Your task to perform on an android device: empty trash in google photos Image 0: 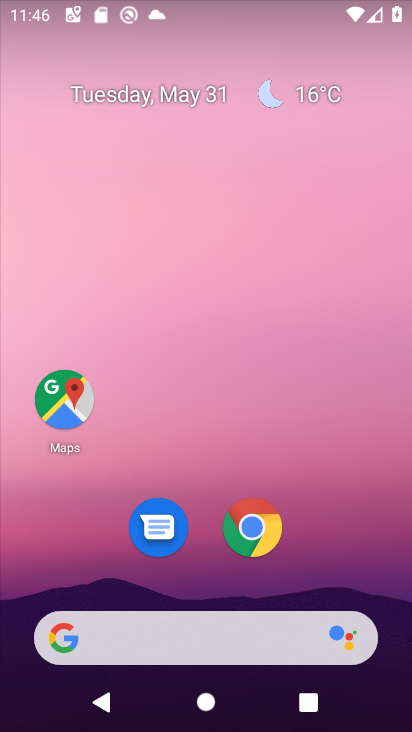
Step 0: drag from (335, 594) to (362, 10)
Your task to perform on an android device: empty trash in google photos Image 1: 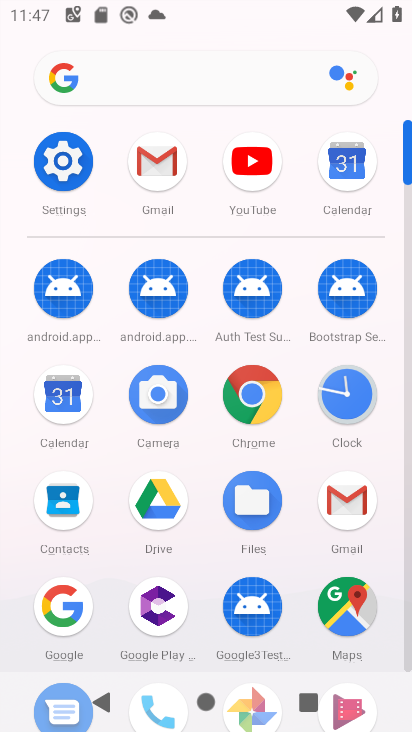
Step 1: click (404, 501)
Your task to perform on an android device: empty trash in google photos Image 2: 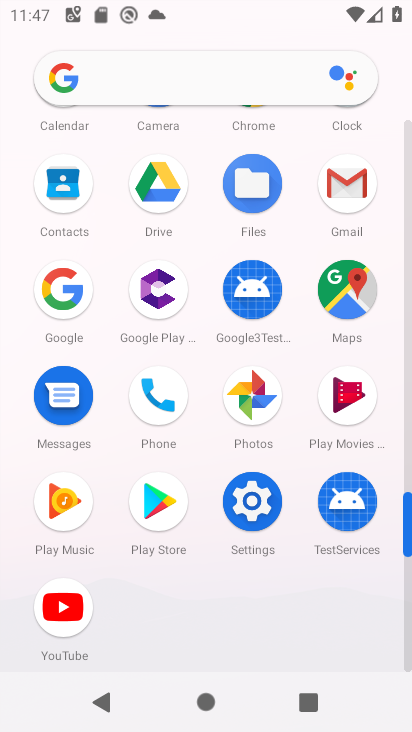
Step 2: click (247, 398)
Your task to perform on an android device: empty trash in google photos Image 3: 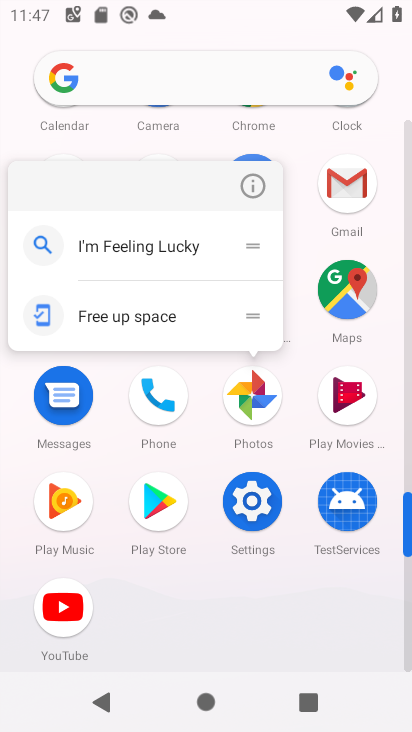
Step 3: click (247, 398)
Your task to perform on an android device: empty trash in google photos Image 4: 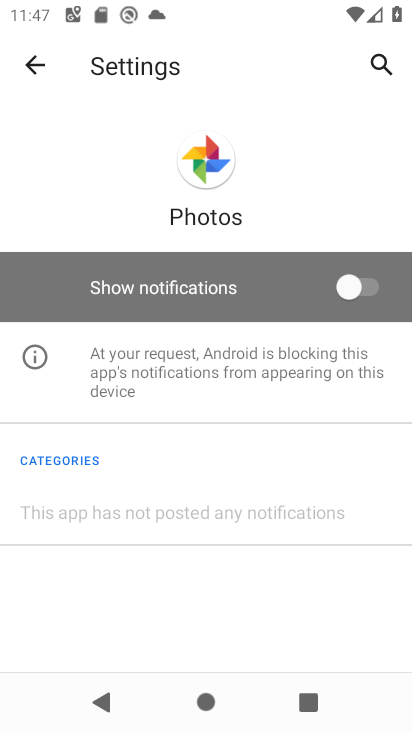
Step 4: click (28, 66)
Your task to perform on an android device: empty trash in google photos Image 5: 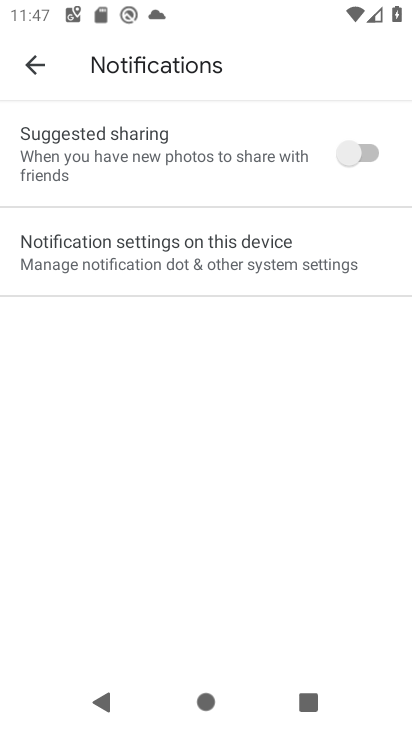
Step 5: click (26, 63)
Your task to perform on an android device: empty trash in google photos Image 6: 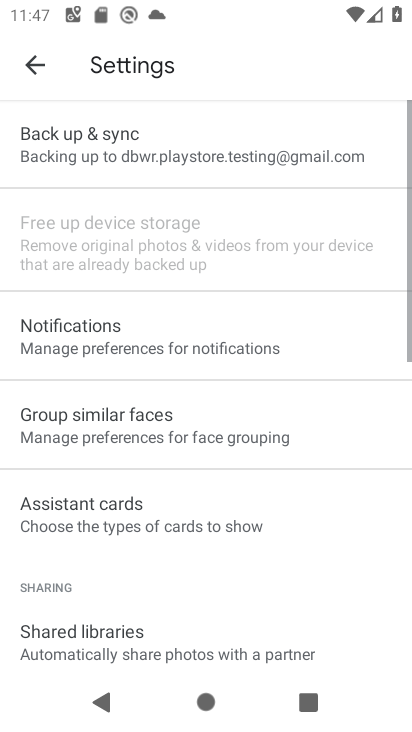
Step 6: click (26, 63)
Your task to perform on an android device: empty trash in google photos Image 7: 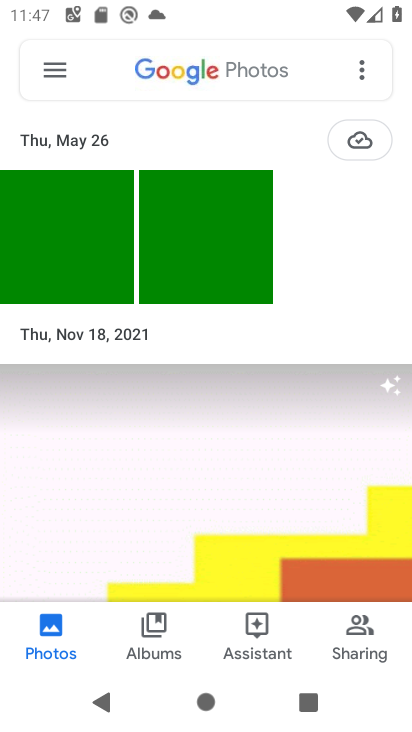
Step 7: click (46, 70)
Your task to perform on an android device: empty trash in google photos Image 8: 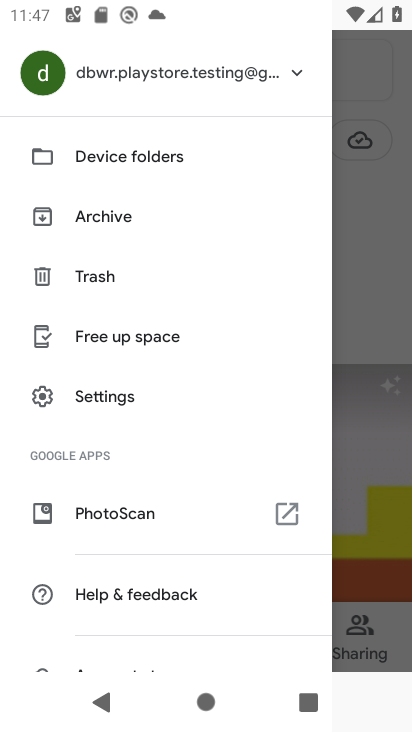
Step 8: click (84, 281)
Your task to perform on an android device: empty trash in google photos Image 9: 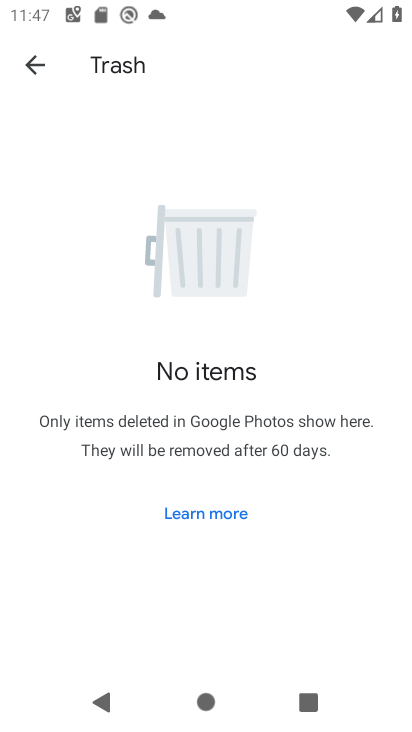
Step 9: task complete